Your task to perform on an android device: toggle translation in the chrome app Image 0: 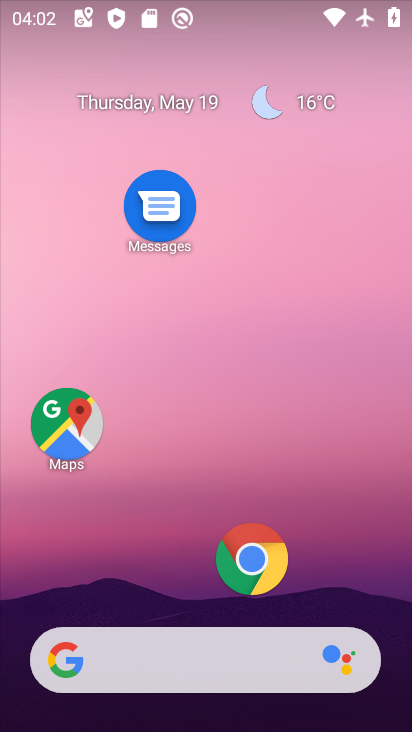
Step 0: click (272, 565)
Your task to perform on an android device: toggle translation in the chrome app Image 1: 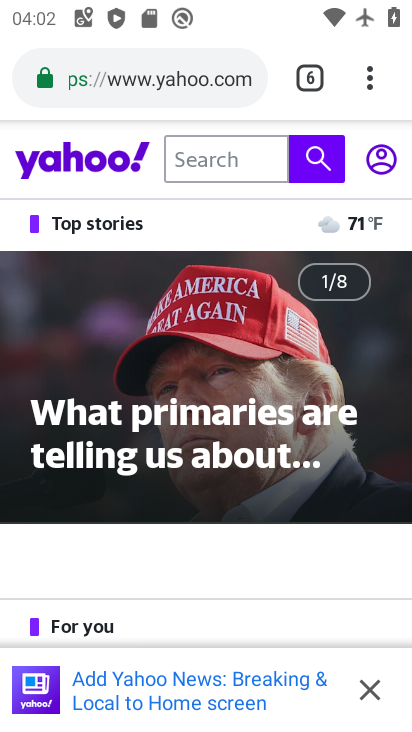
Step 1: click (365, 79)
Your task to perform on an android device: toggle translation in the chrome app Image 2: 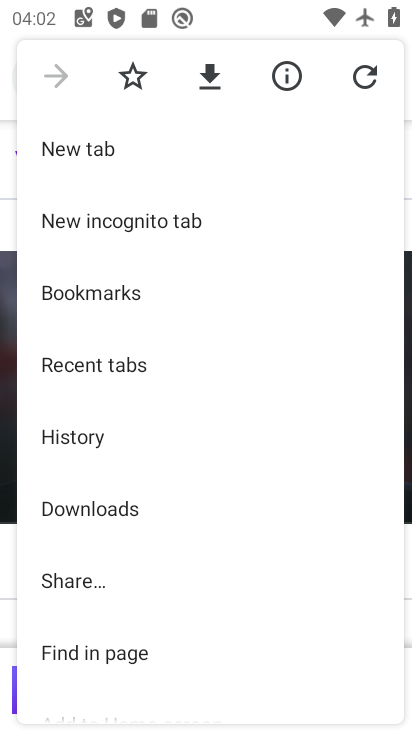
Step 2: drag from (216, 649) to (241, 355)
Your task to perform on an android device: toggle translation in the chrome app Image 3: 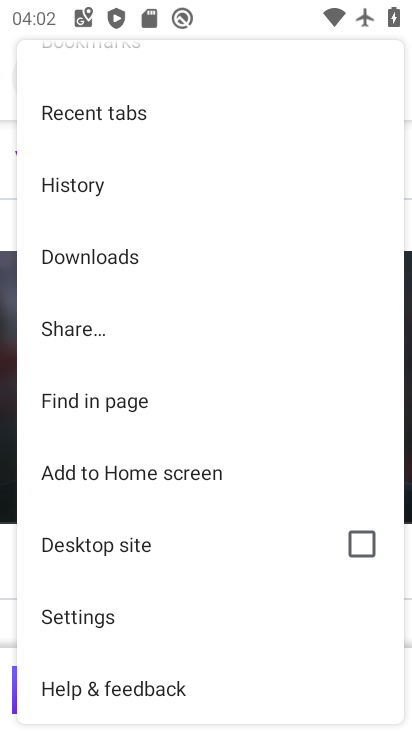
Step 3: click (98, 615)
Your task to perform on an android device: toggle translation in the chrome app Image 4: 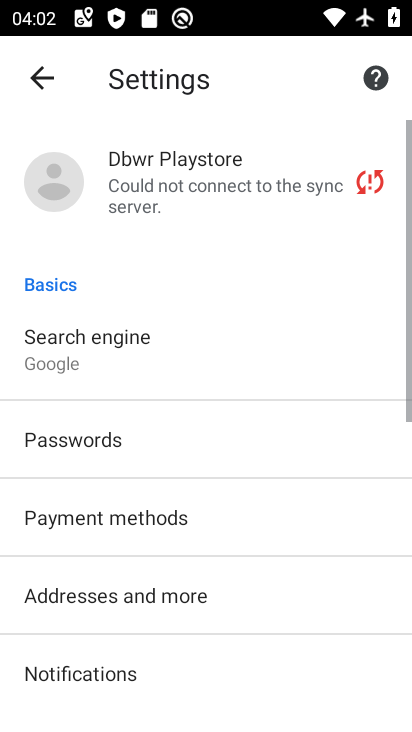
Step 4: drag from (188, 642) to (207, 434)
Your task to perform on an android device: toggle translation in the chrome app Image 5: 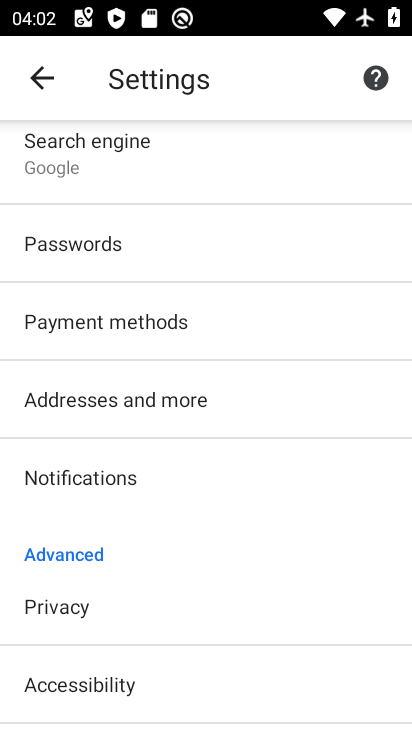
Step 5: drag from (187, 633) to (199, 439)
Your task to perform on an android device: toggle translation in the chrome app Image 6: 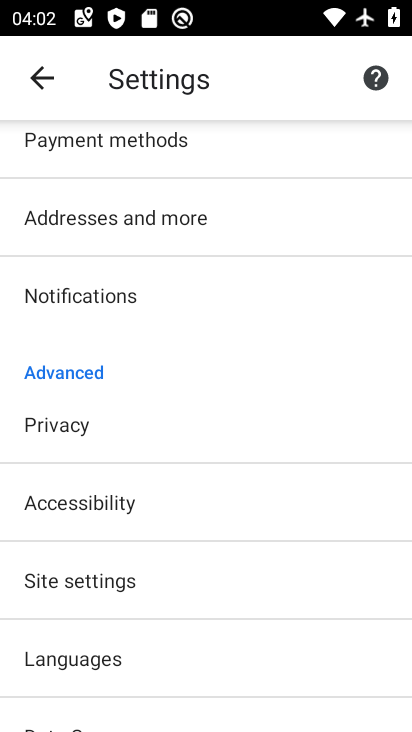
Step 6: click (136, 654)
Your task to perform on an android device: toggle translation in the chrome app Image 7: 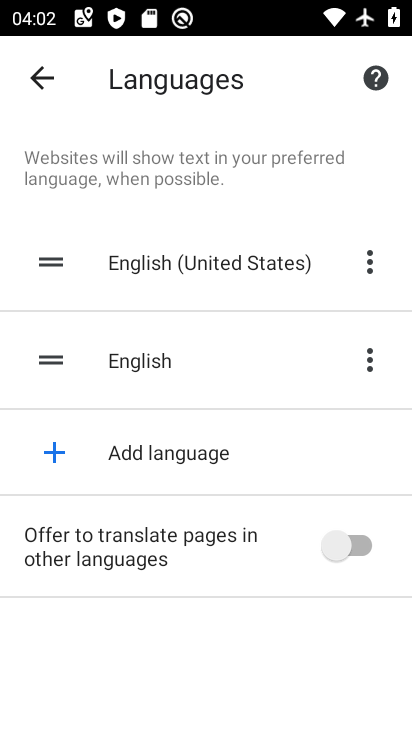
Step 7: click (354, 542)
Your task to perform on an android device: toggle translation in the chrome app Image 8: 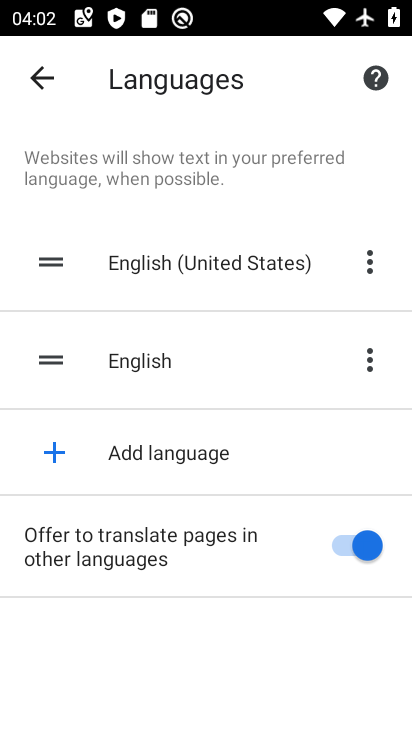
Step 8: task complete